Your task to perform on an android device: Search for a 100 ft extension cord Image 0: 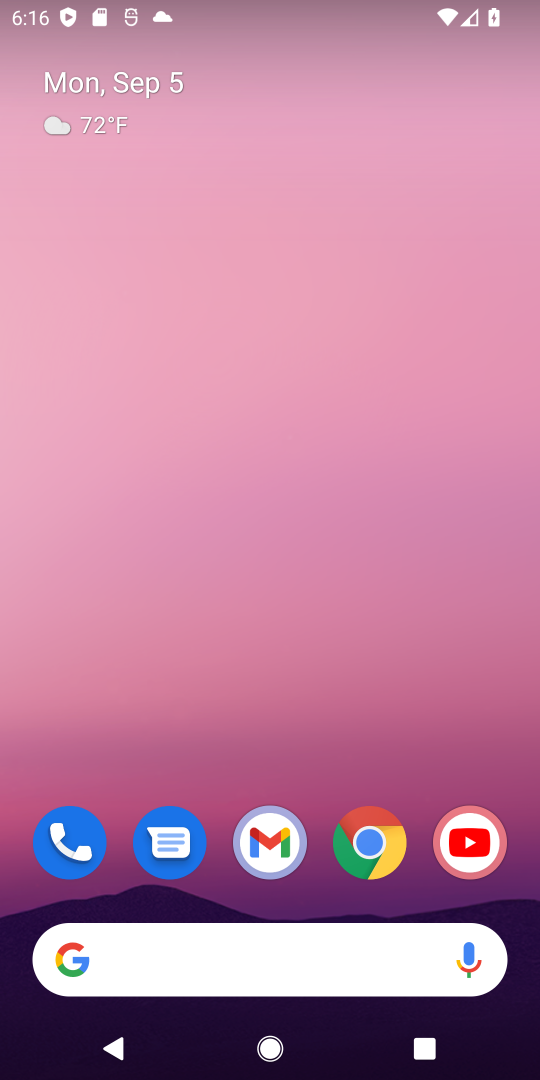
Step 0: click (369, 843)
Your task to perform on an android device: Search for a 100 ft extension cord Image 1: 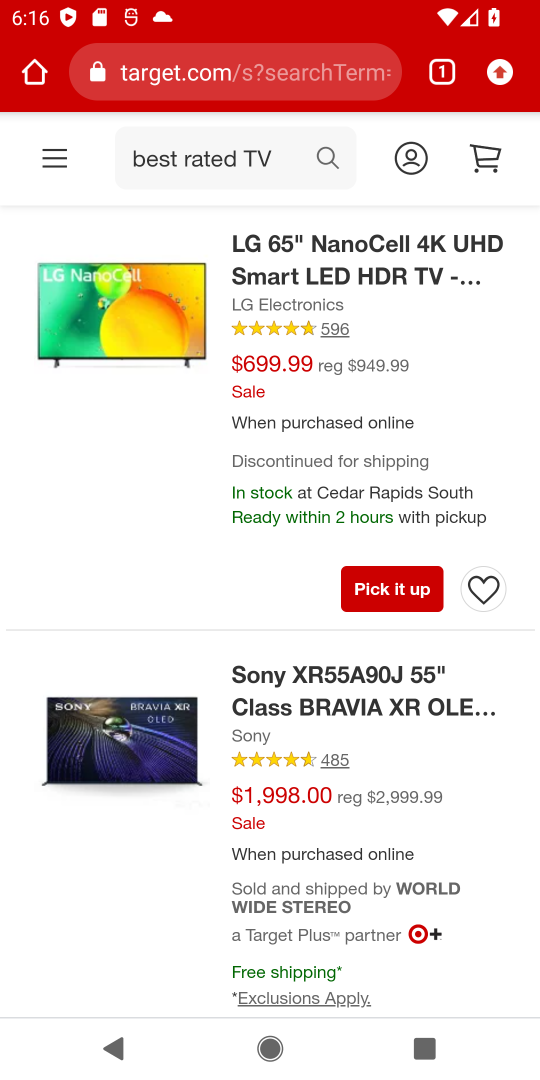
Step 1: click (320, 77)
Your task to perform on an android device: Search for a 100 ft extension cord Image 2: 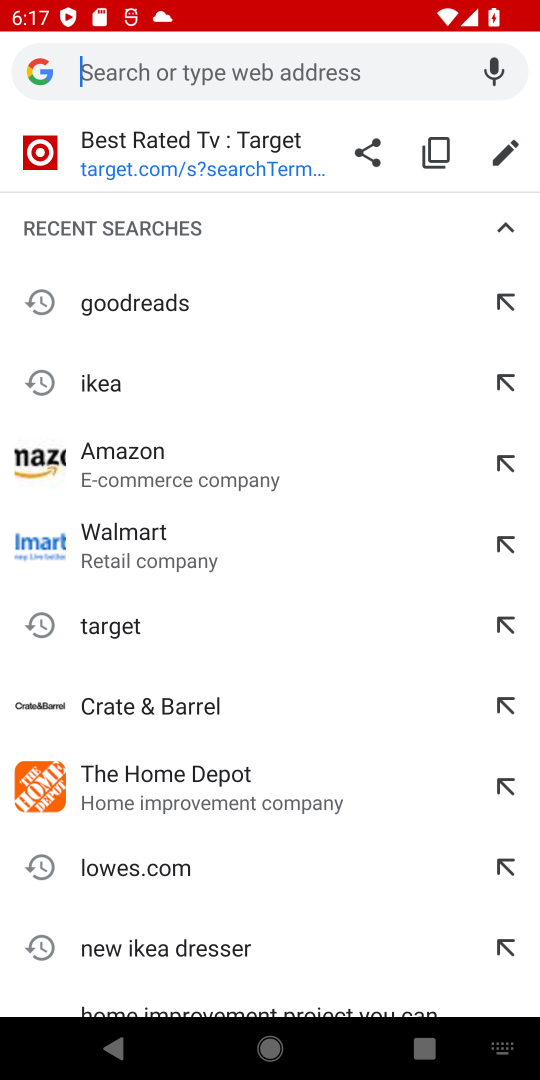
Step 2: click (259, 78)
Your task to perform on an android device: Search for a 100 ft extension cord Image 3: 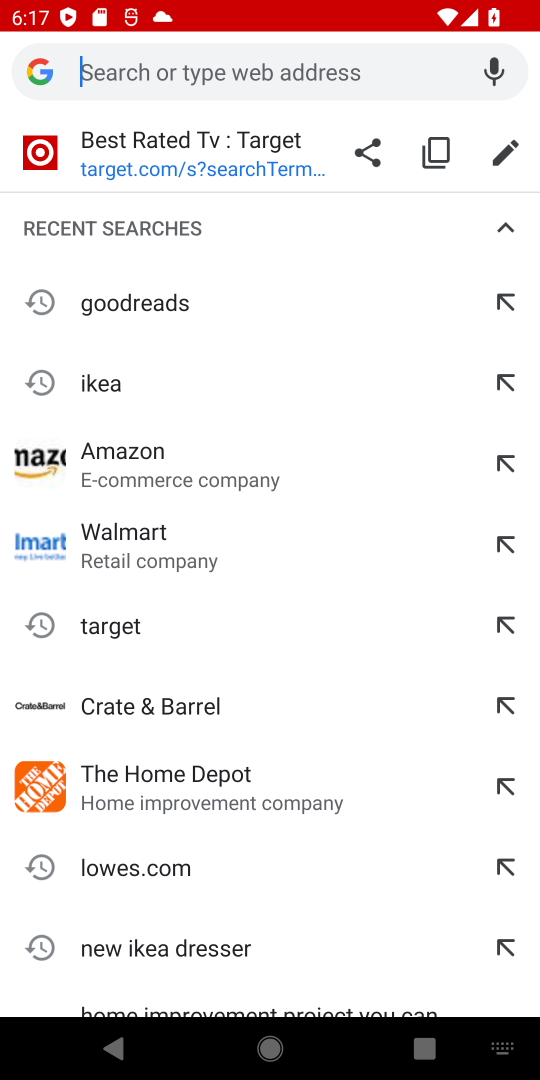
Step 3: type "100 ft extension cord"
Your task to perform on an android device: Search for a 100 ft extension cord Image 4: 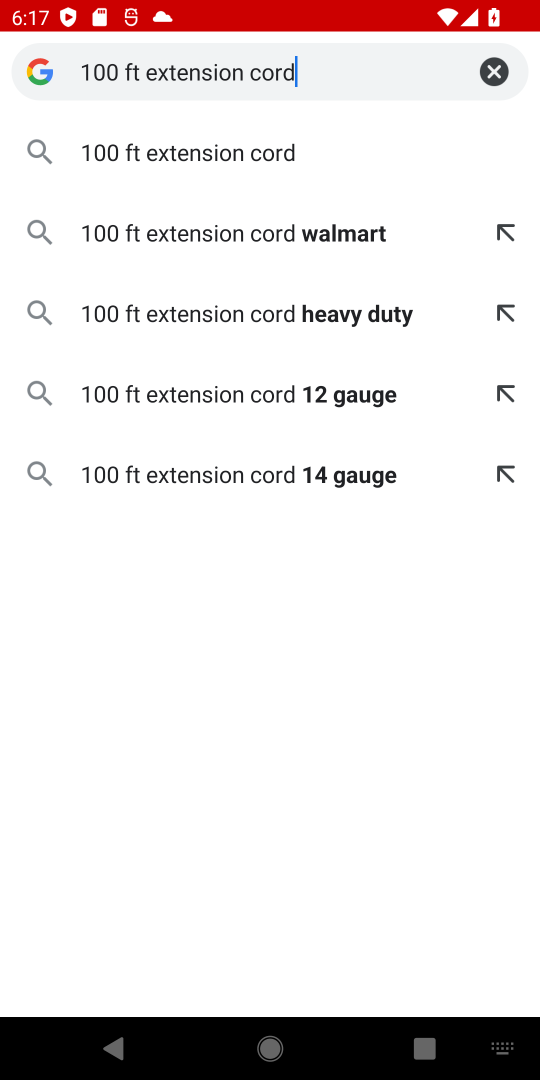
Step 4: click (257, 149)
Your task to perform on an android device: Search for a 100 ft extension cord Image 5: 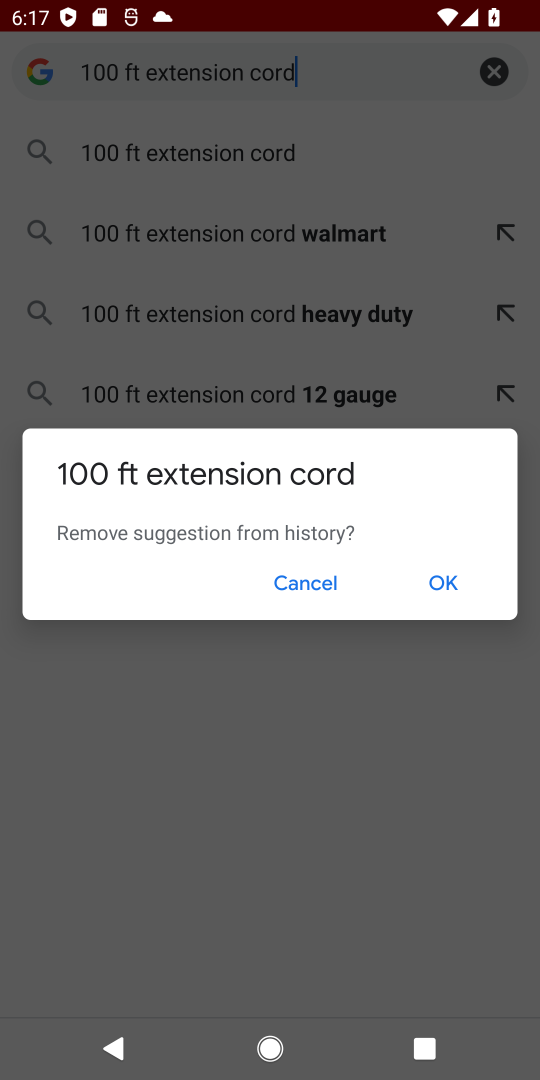
Step 5: click (313, 654)
Your task to perform on an android device: Search for a 100 ft extension cord Image 6: 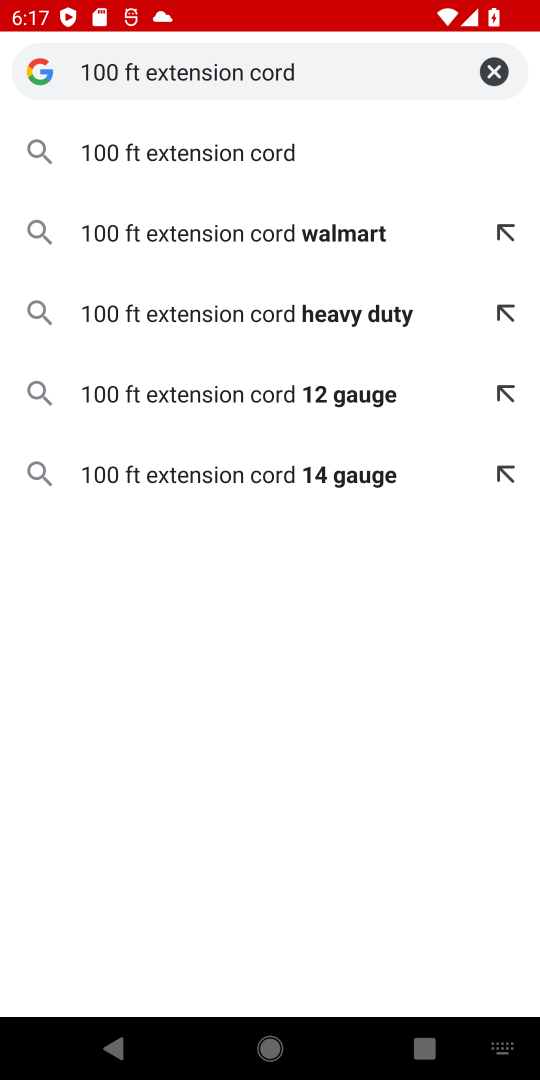
Step 6: click (200, 152)
Your task to perform on an android device: Search for a 100 ft extension cord Image 7: 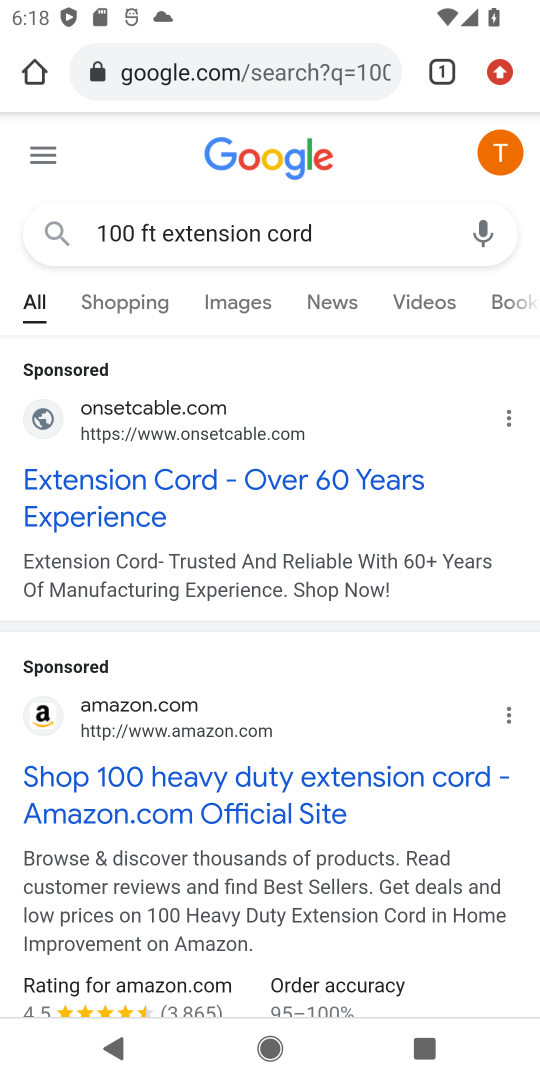
Step 7: click (314, 271)
Your task to perform on an android device: Search for a 100 ft extension cord Image 8: 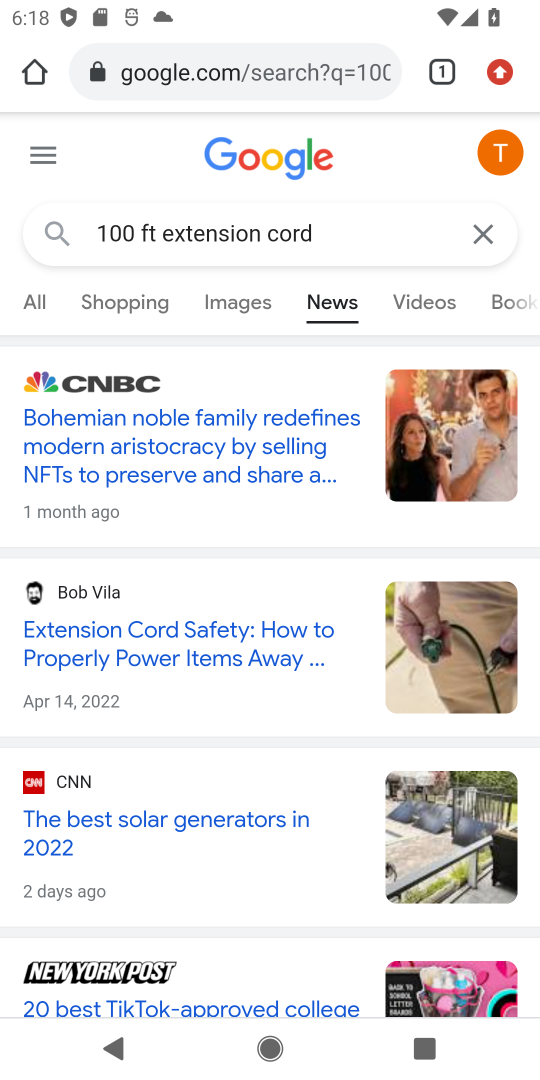
Step 8: click (35, 308)
Your task to perform on an android device: Search for a 100 ft extension cord Image 9: 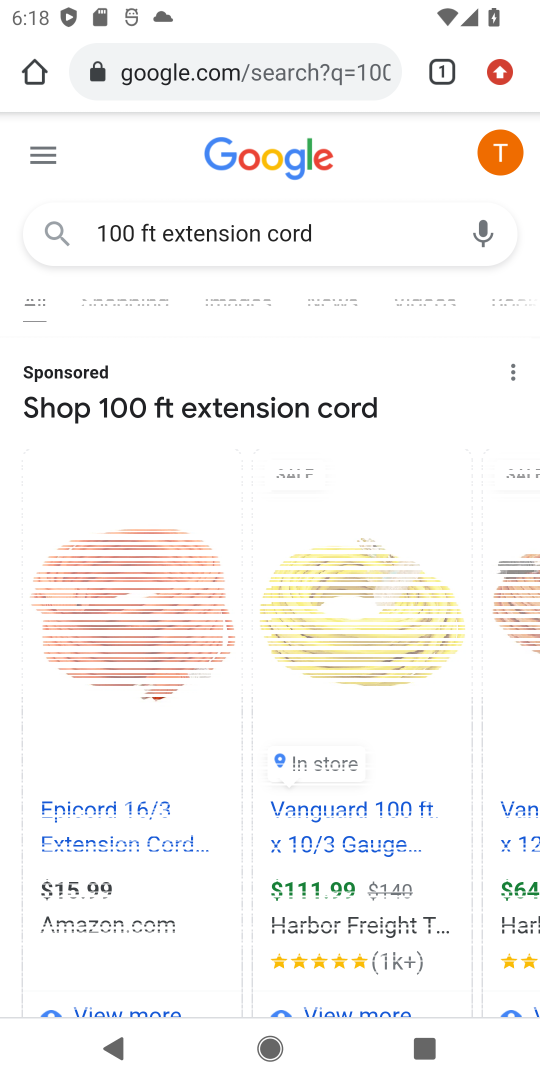
Step 9: drag from (208, 855) to (299, 528)
Your task to perform on an android device: Search for a 100 ft extension cord Image 10: 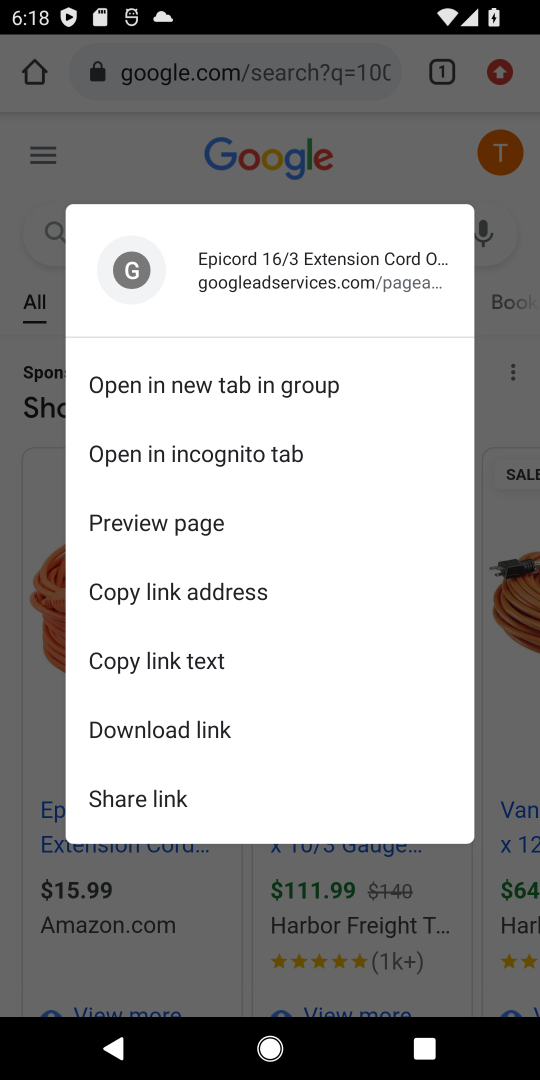
Step 10: click (447, 328)
Your task to perform on an android device: Search for a 100 ft extension cord Image 11: 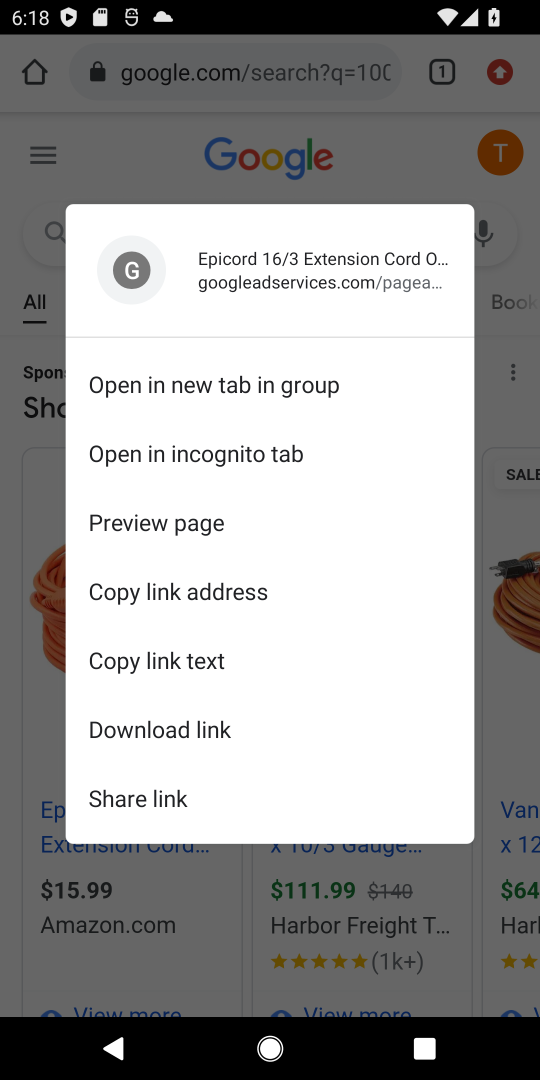
Step 11: click (502, 305)
Your task to perform on an android device: Search for a 100 ft extension cord Image 12: 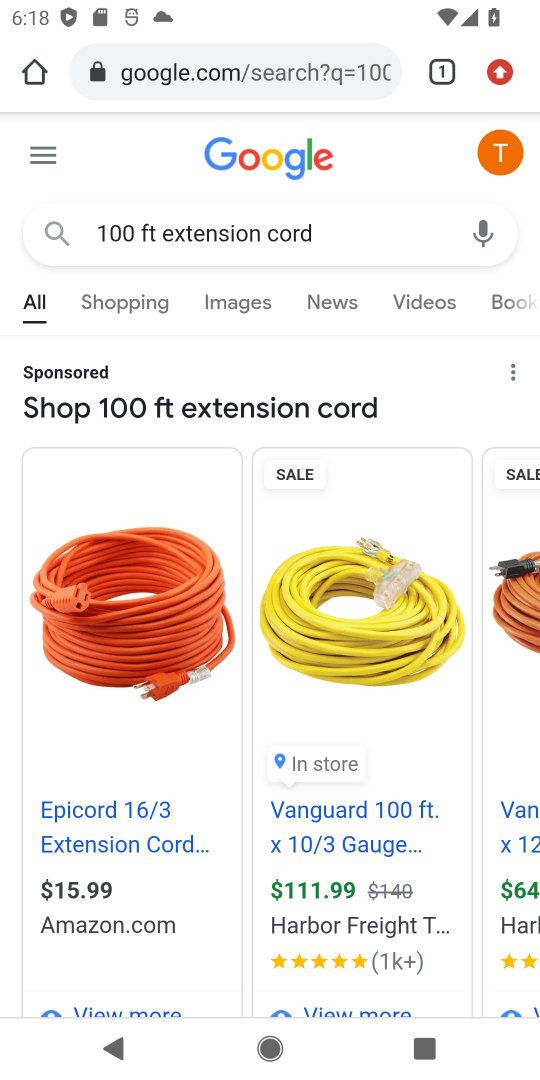
Step 12: task complete